Your task to perform on an android device: empty trash in the gmail app Image 0: 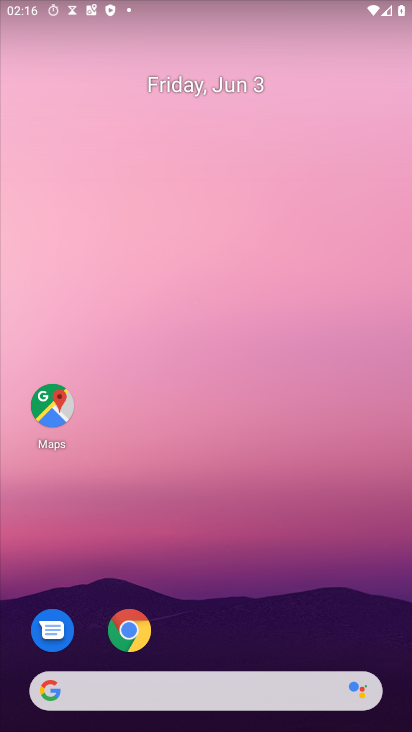
Step 0: drag from (227, 632) to (227, 142)
Your task to perform on an android device: empty trash in the gmail app Image 1: 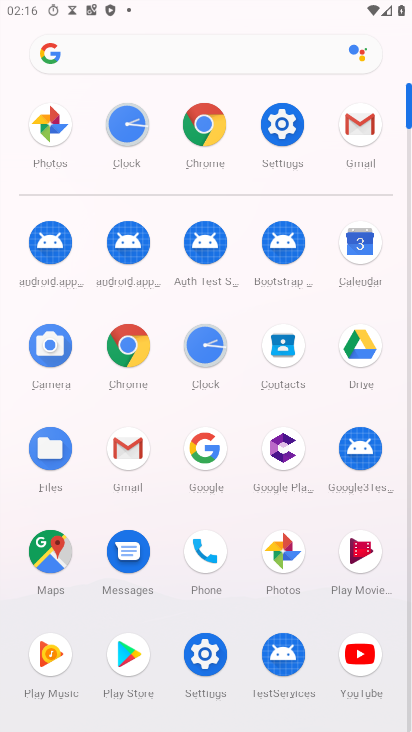
Step 1: click (351, 133)
Your task to perform on an android device: empty trash in the gmail app Image 2: 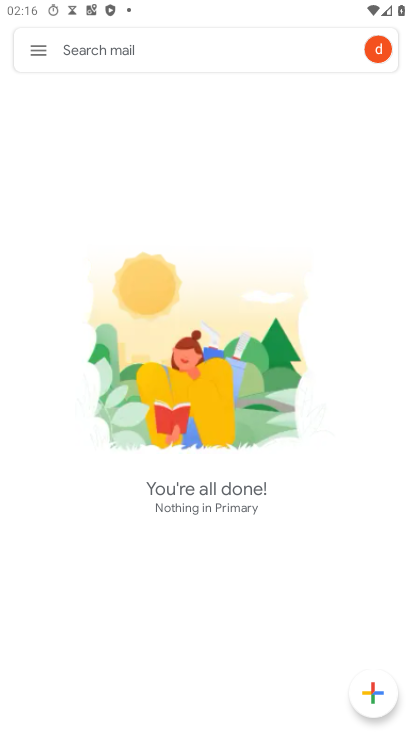
Step 2: click (43, 55)
Your task to perform on an android device: empty trash in the gmail app Image 3: 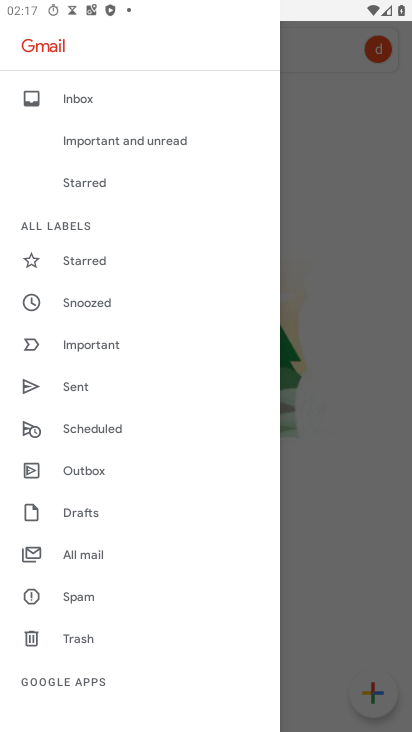
Step 3: click (84, 628)
Your task to perform on an android device: empty trash in the gmail app Image 4: 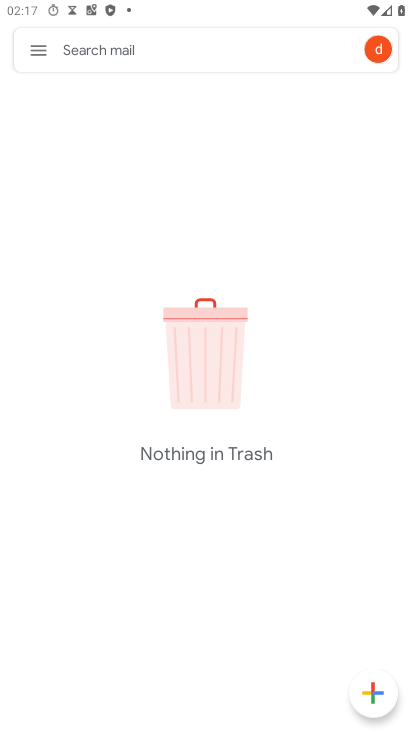
Step 4: task complete